Your task to perform on an android device: Open calendar and show me the first week of next month Image 0: 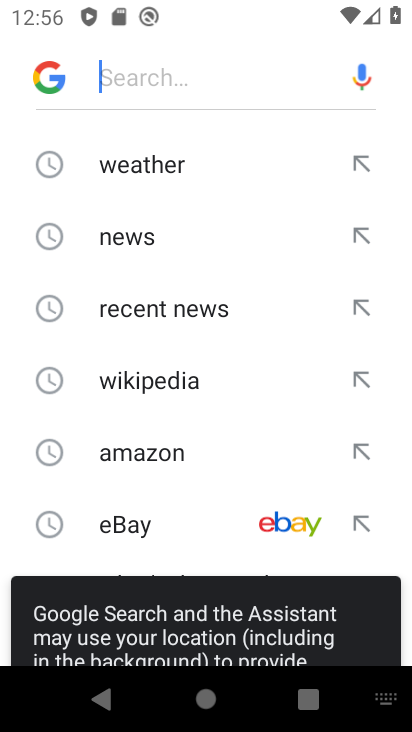
Step 0: press home button
Your task to perform on an android device: Open calendar and show me the first week of next month Image 1: 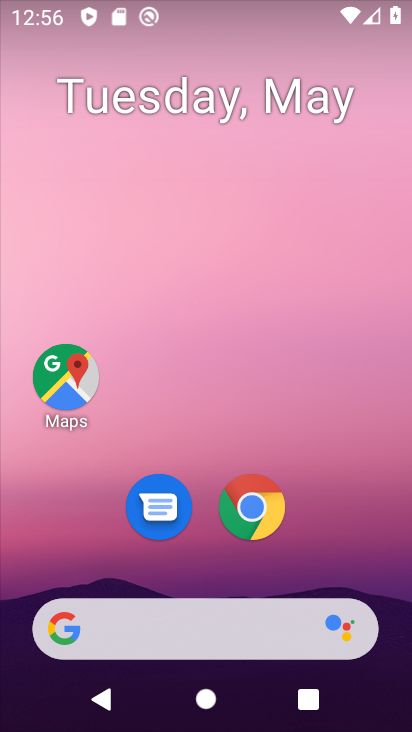
Step 1: drag from (387, 572) to (313, 108)
Your task to perform on an android device: Open calendar and show me the first week of next month Image 2: 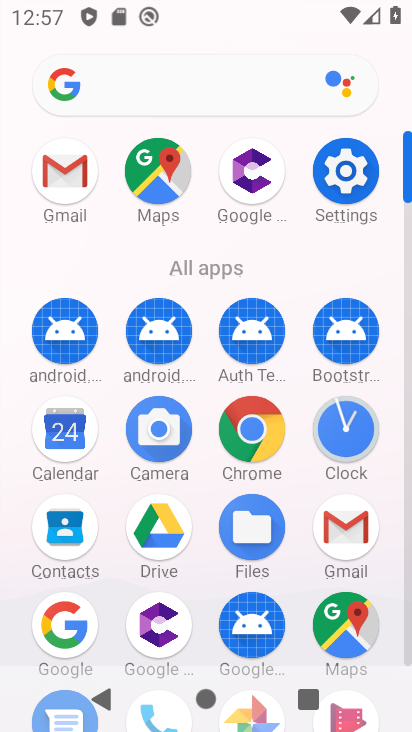
Step 2: click (48, 414)
Your task to perform on an android device: Open calendar and show me the first week of next month Image 3: 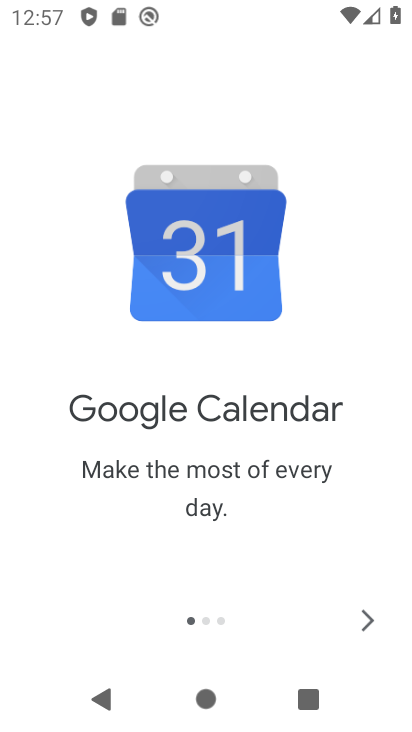
Step 3: click (372, 615)
Your task to perform on an android device: Open calendar and show me the first week of next month Image 4: 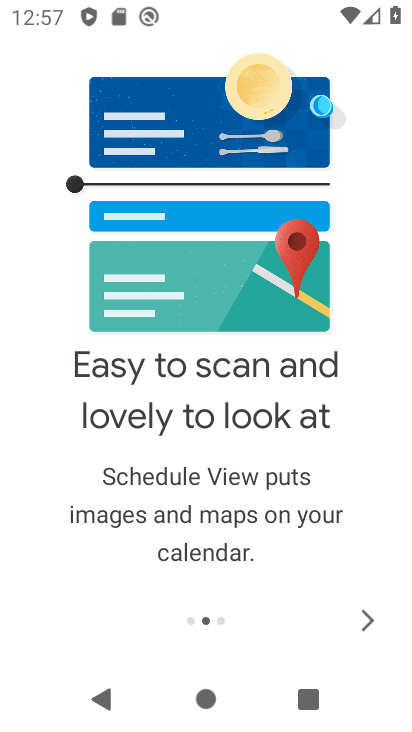
Step 4: click (372, 615)
Your task to perform on an android device: Open calendar and show me the first week of next month Image 5: 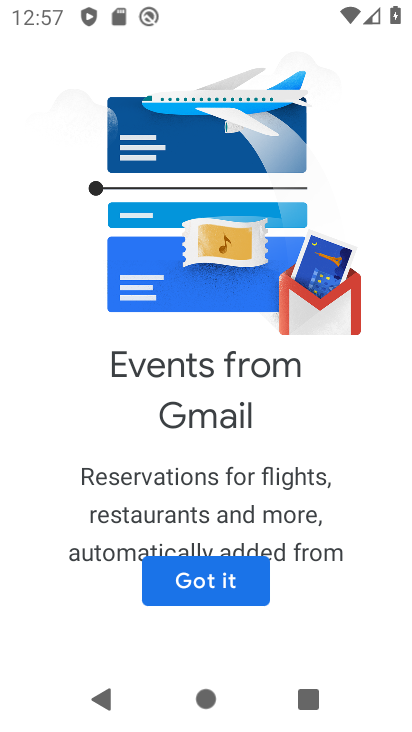
Step 5: click (231, 574)
Your task to perform on an android device: Open calendar and show me the first week of next month Image 6: 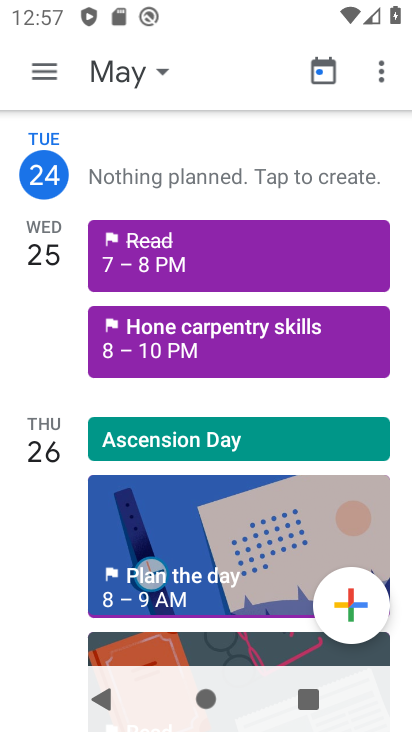
Step 6: click (153, 70)
Your task to perform on an android device: Open calendar and show me the first week of next month Image 7: 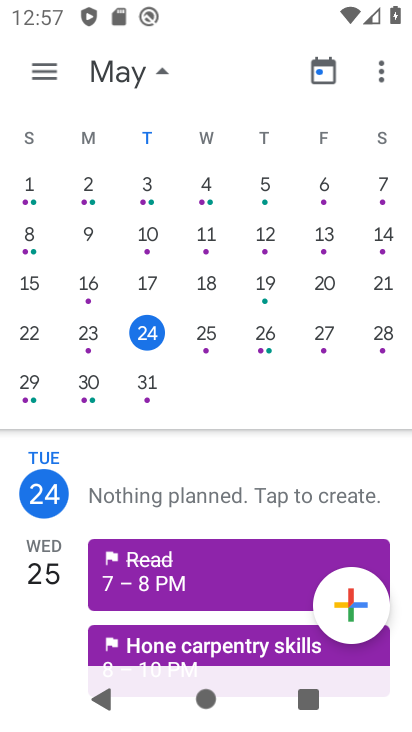
Step 7: click (26, 71)
Your task to perform on an android device: Open calendar and show me the first week of next month Image 8: 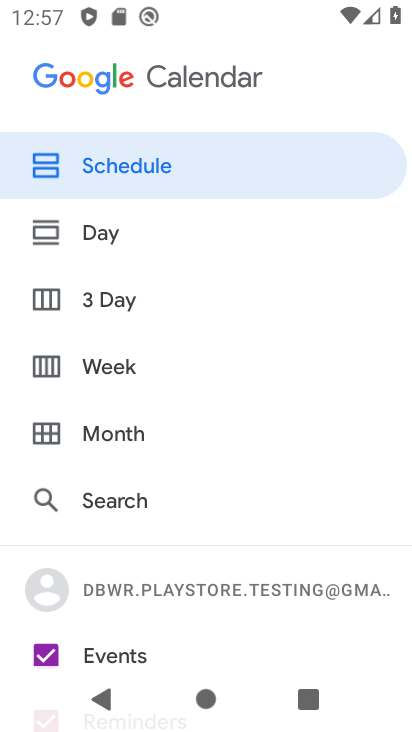
Step 8: click (107, 370)
Your task to perform on an android device: Open calendar and show me the first week of next month Image 9: 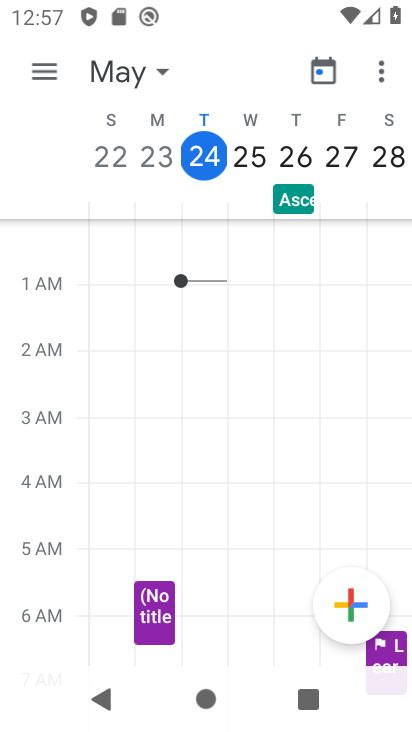
Step 9: click (151, 73)
Your task to perform on an android device: Open calendar and show me the first week of next month Image 10: 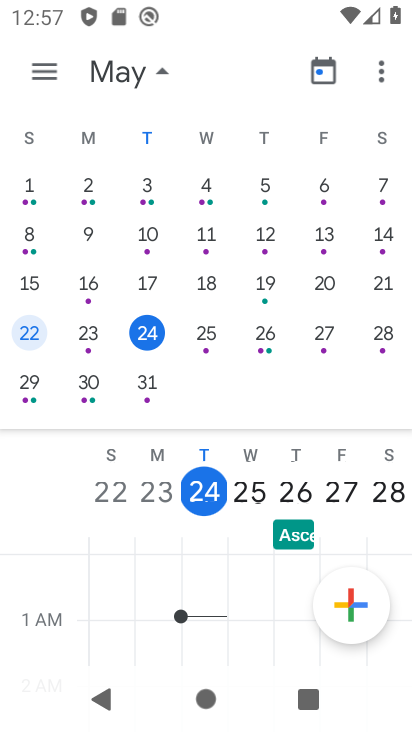
Step 10: drag from (391, 285) to (31, 292)
Your task to perform on an android device: Open calendar and show me the first week of next month Image 11: 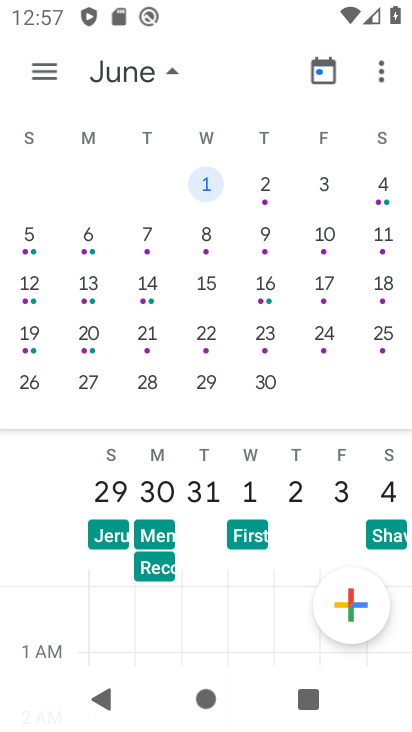
Step 11: click (207, 178)
Your task to perform on an android device: Open calendar and show me the first week of next month Image 12: 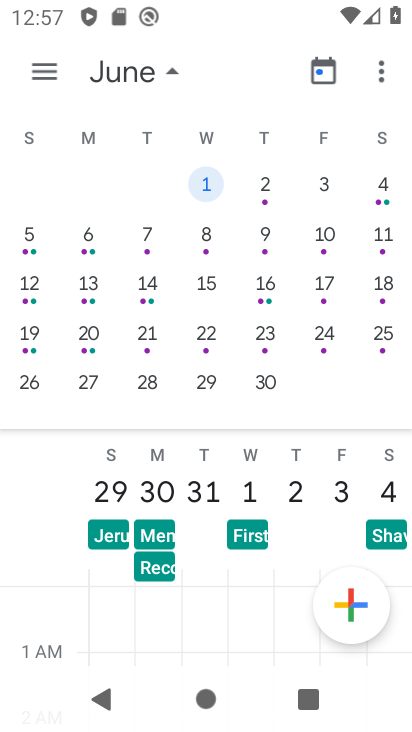
Step 12: task complete